Your task to perform on an android device: toggle javascript in the chrome app Image 0: 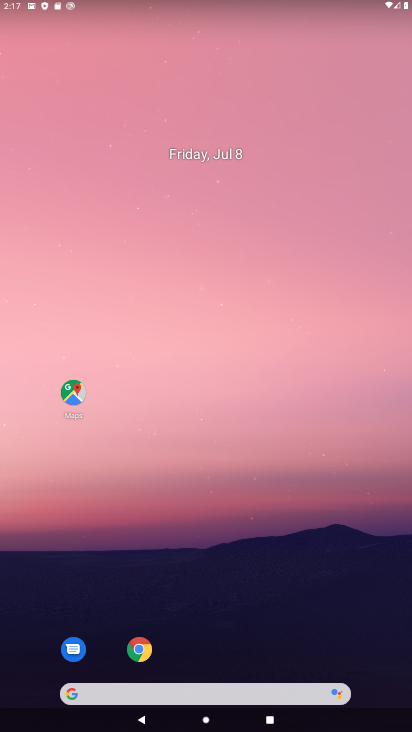
Step 0: drag from (258, 560) to (248, 91)
Your task to perform on an android device: toggle javascript in the chrome app Image 1: 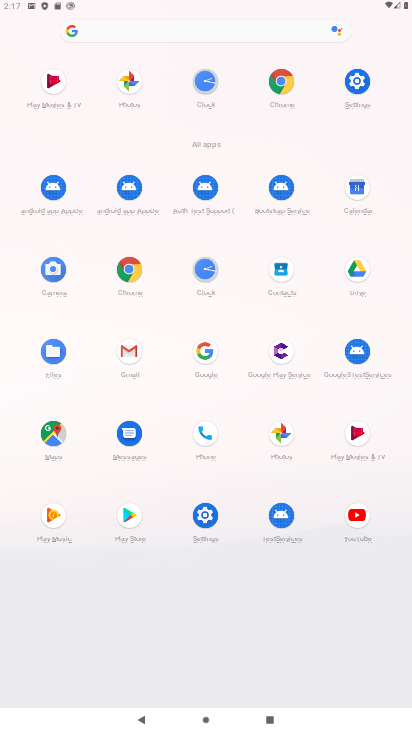
Step 1: click (287, 82)
Your task to perform on an android device: toggle javascript in the chrome app Image 2: 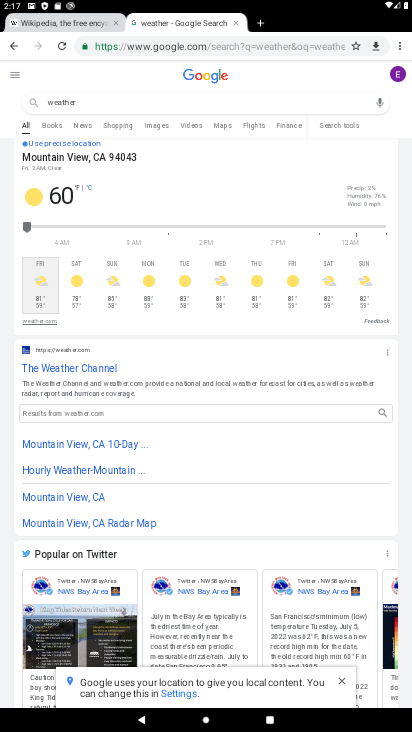
Step 2: drag from (395, 42) to (295, 286)
Your task to perform on an android device: toggle javascript in the chrome app Image 3: 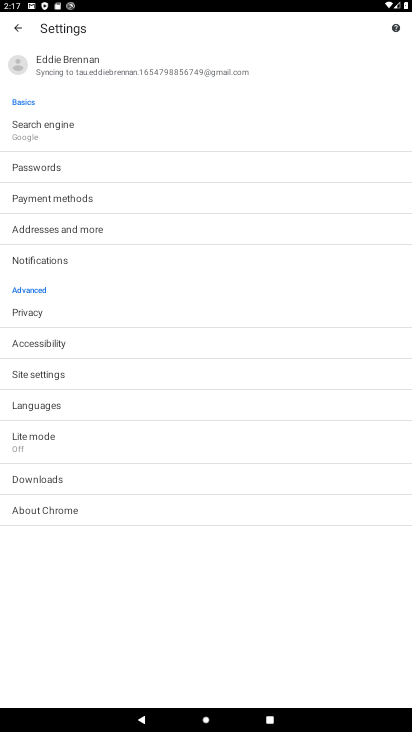
Step 3: click (90, 368)
Your task to perform on an android device: toggle javascript in the chrome app Image 4: 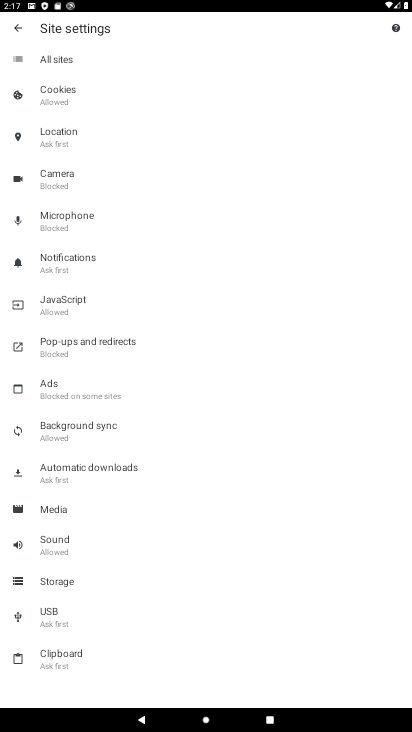
Step 4: click (80, 308)
Your task to perform on an android device: toggle javascript in the chrome app Image 5: 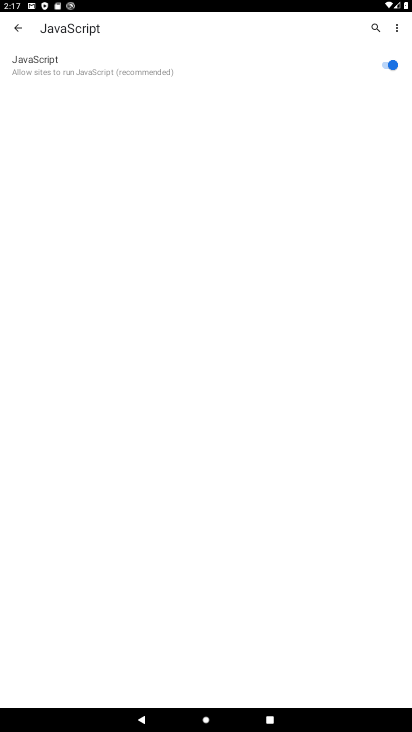
Step 5: click (386, 64)
Your task to perform on an android device: toggle javascript in the chrome app Image 6: 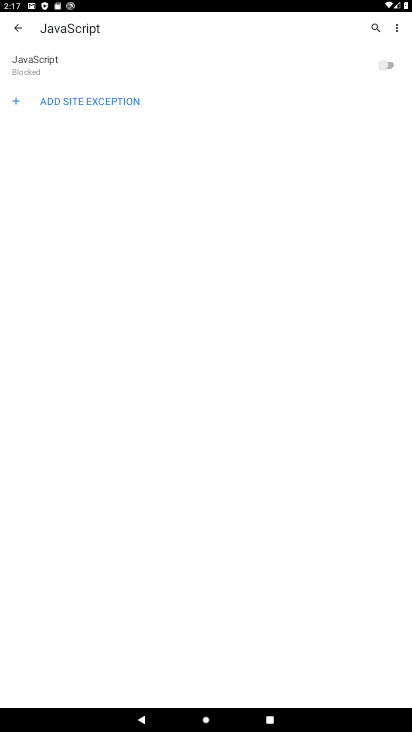
Step 6: task complete